Your task to perform on an android device: open app "Pandora - Music & Podcasts" (install if not already installed) Image 0: 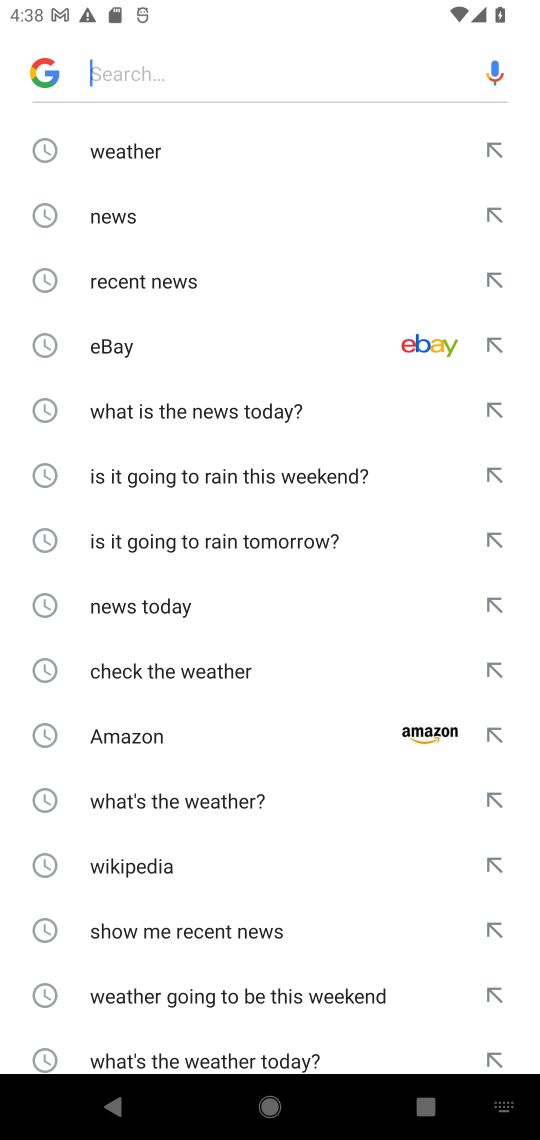
Step 0: press home button
Your task to perform on an android device: open app "Pandora - Music & Podcasts" (install if not already installed) Image 1: 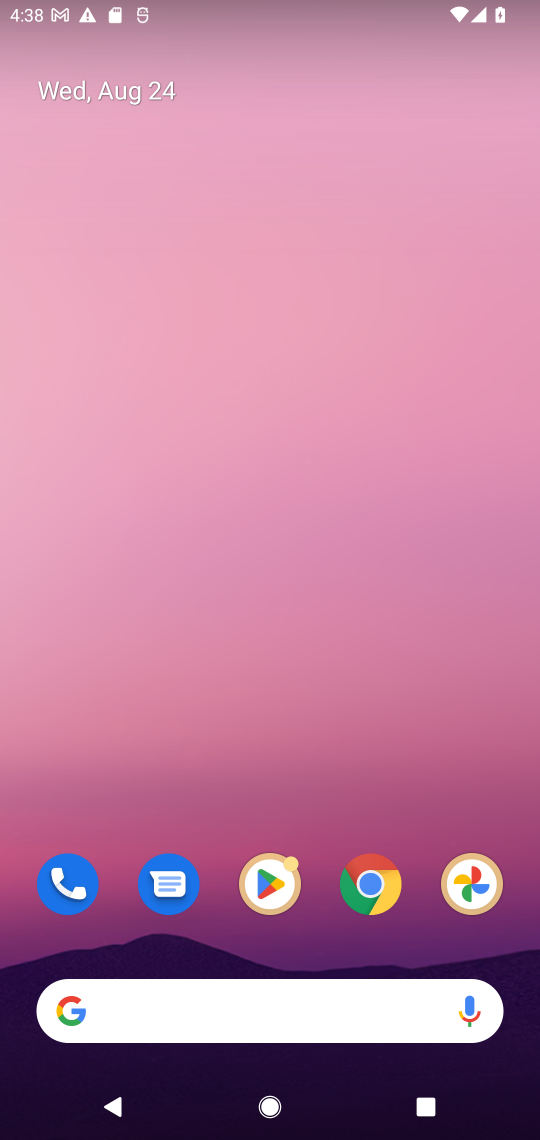
Step 1: click (269, 864)
Your task to perform on an android device: open app "Pandora - Music & Podcasts" (install if not already installed) Image 2: 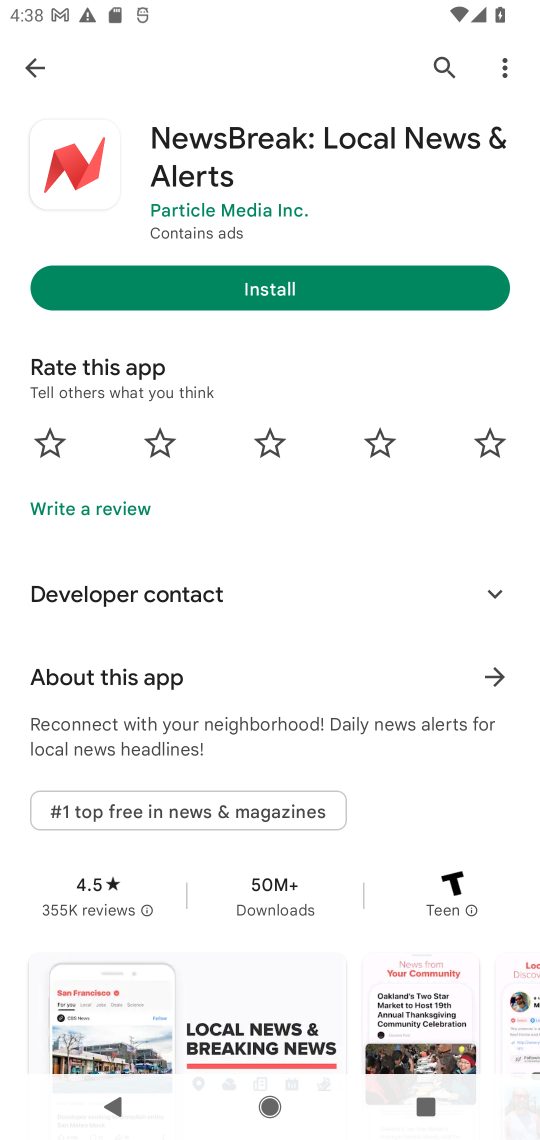
Step 2: click (38, 63)
Your task to perform on an android device: open app "Pandora - Music & Podcasts" (install if not already installed) Image 3: 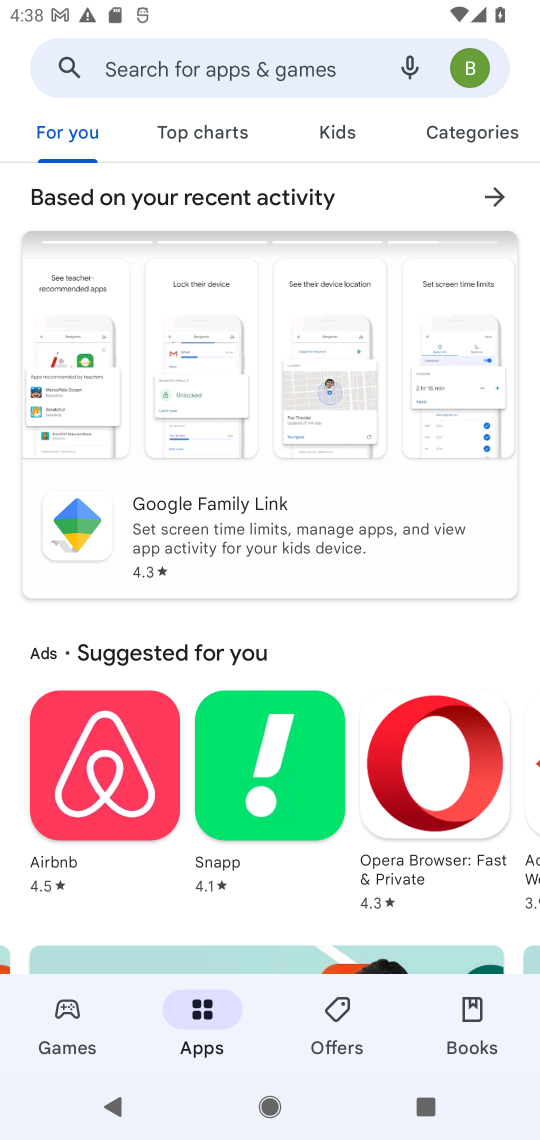
Step 3: click (243, 70)
Your task to perform on an android device: open app "Pandora - Music & Podcasts" (install if not already installed) Image 4: 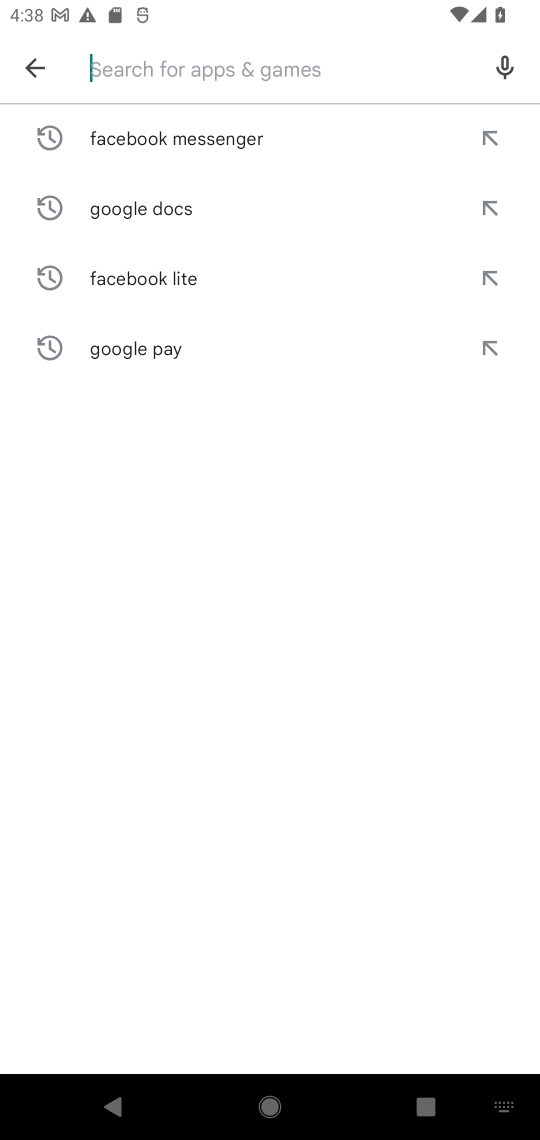
Step 4: type "Pandora"
Your task to perform on an android device: open app "Pandora - Music & Podcasts" (install if not already installed) Image 5: 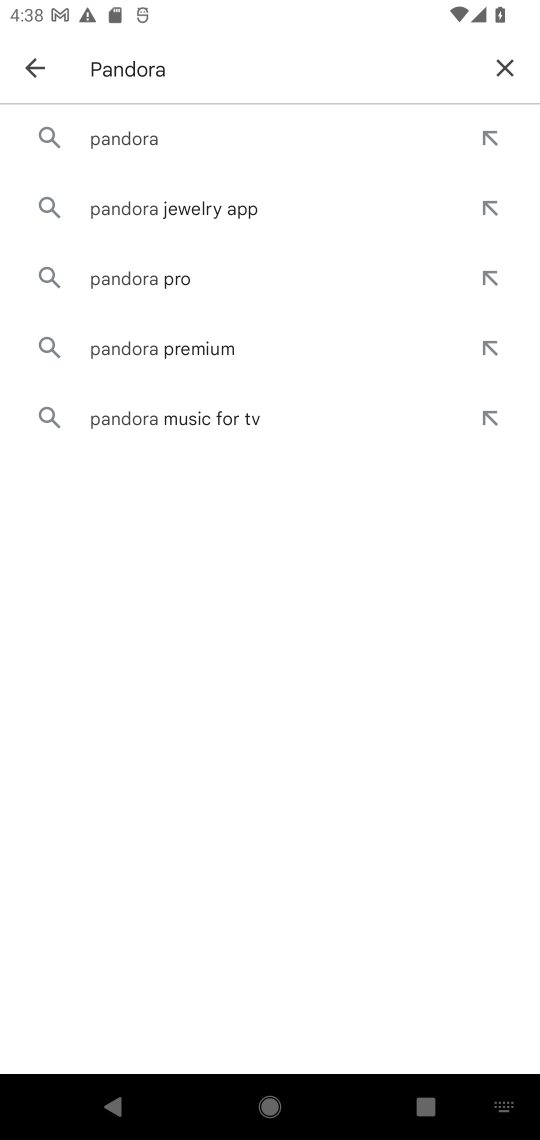
Step 5: click (123, 130)
Your task to perform on an android device: open app "Pandora - Music & Podcasts" (install if not already installed) Image 6: 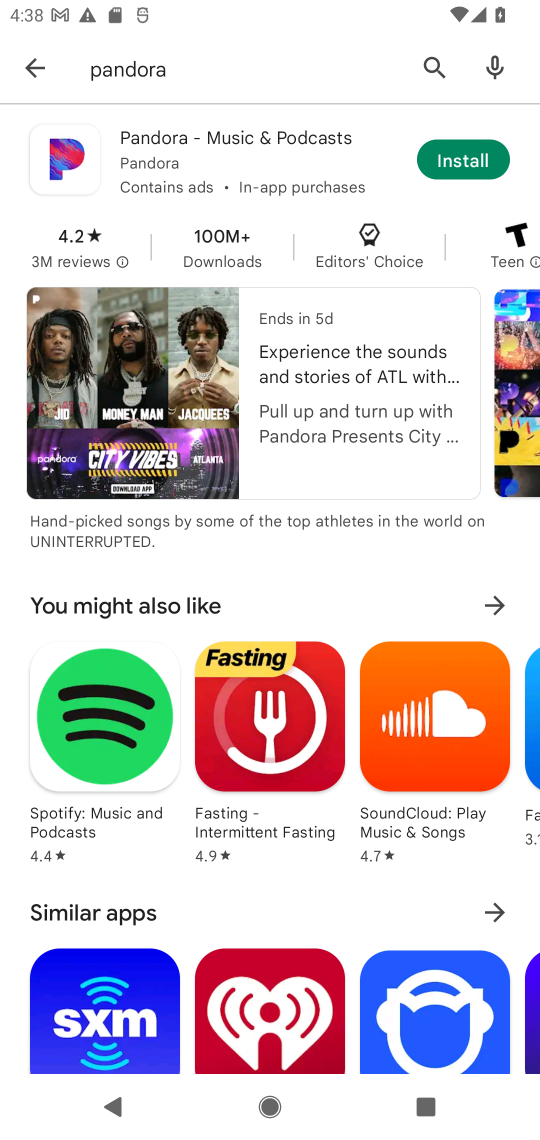
Step 6: click (459, 142)
Your task to perform on an android device: open app "Pandora - Music & Podcasts" (install if not already installed) Image 7: 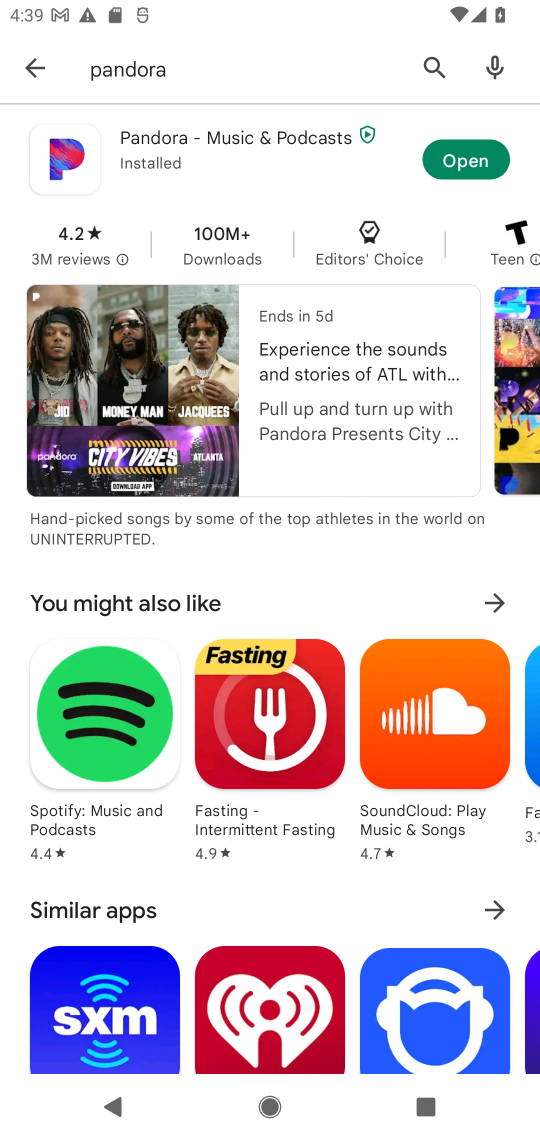
Step 7: click (459, 142)
Your task to perform on an android device: open app "Pandora - Music & Podcasts" (install if not already installed) Image 8: 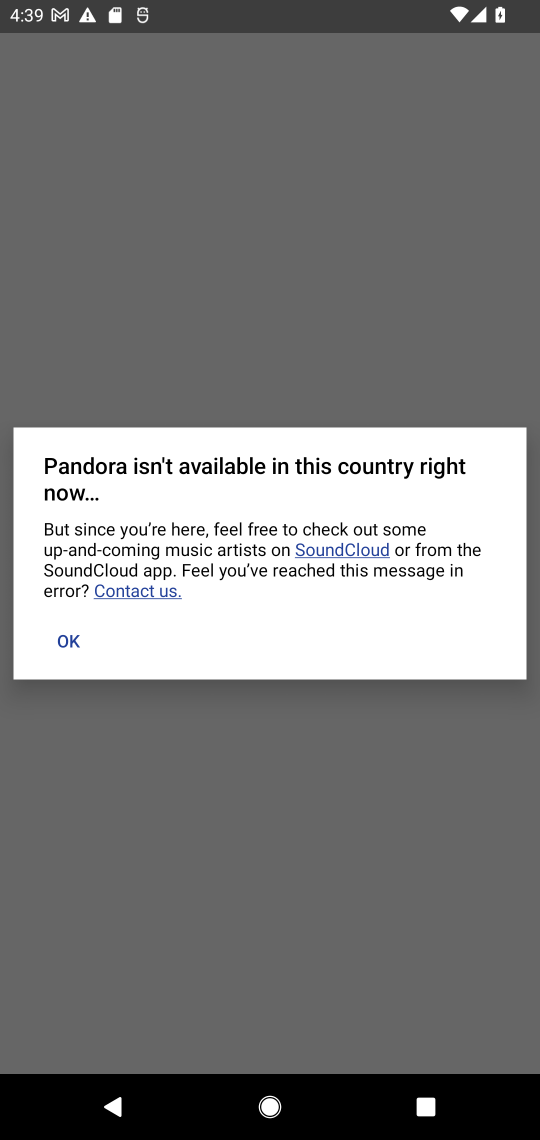
Step 8: task complete